Your task to perform on an android device: toggle javascript in the chrome app Image 0: 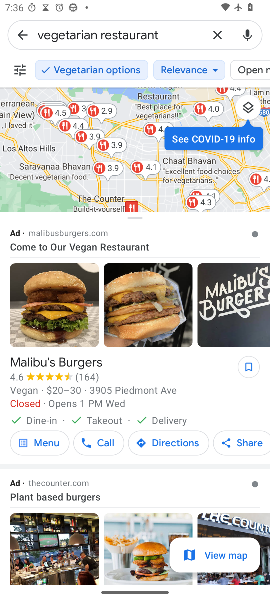
Step 0: press home button
Your task to perform on an android device: toggle javascript in the chrome app Image 1: 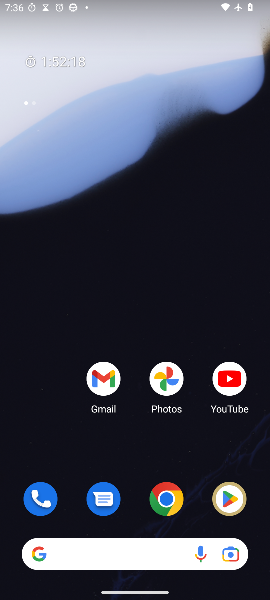
Step 1: drag from (111, 388) to (136, 29)
Your task to perform on an android device: toggle javascript in the chrome app Image 2: 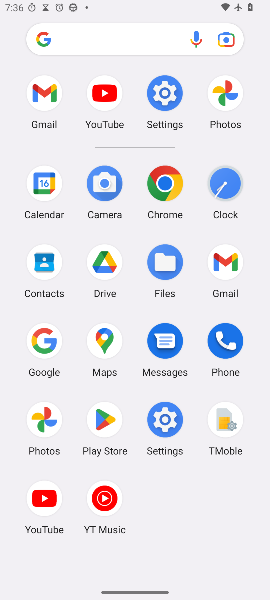
Step 2: click (166, 199)
Your task to perform on an android device: toggle javascript in the chrome app Image 3: 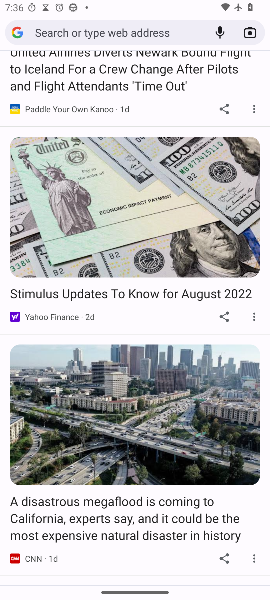
Step 3: drag from (160, 240) to (142, 486)
Your task to perform on an android device: toggle javascript in the chrome app Image 4: 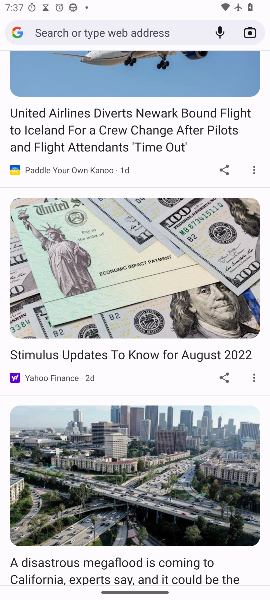
Step 4: drag from (129, 192) to (173, 479)
Your task to perform on an android device: toggle javascript in the chrome app Image 5: 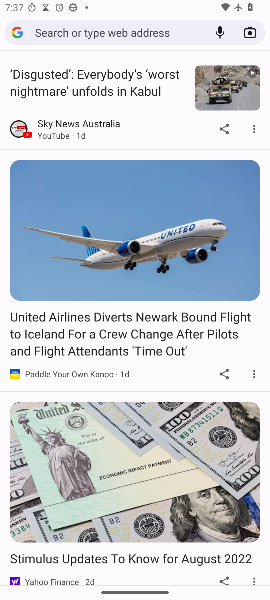
Step 5: drag from (164, 195) to (194, 468)
Your task to perform on an android device: toggle javascript in the chrome app Image 6: 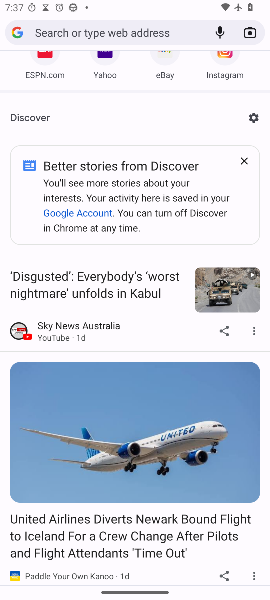
Step 6: drag from (141, 157) to (200, 490)
Your task to perform on an android device: toggle javascript in the chrome app Image 7: 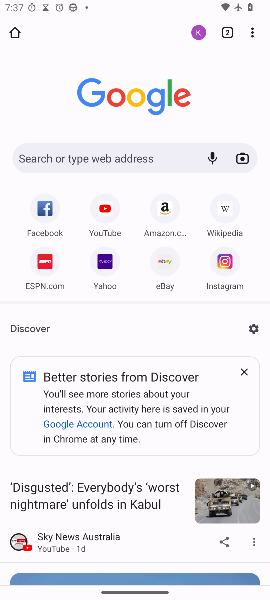
Step 7: drag from (251, 36) to (150, 297)
Your task to perform on an android device: toggle javascript in the chrome app Image 8: 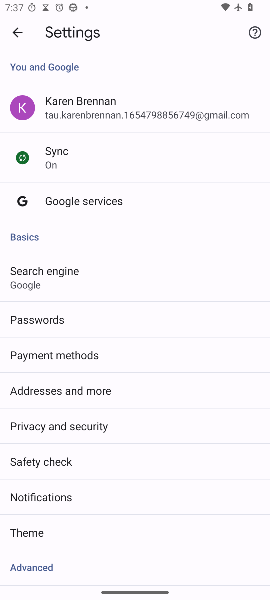
Step 8: drag from (93, 559) to (132, 169)
Your task to perform on an android device: toggle javascript in the chrome app Image 9: 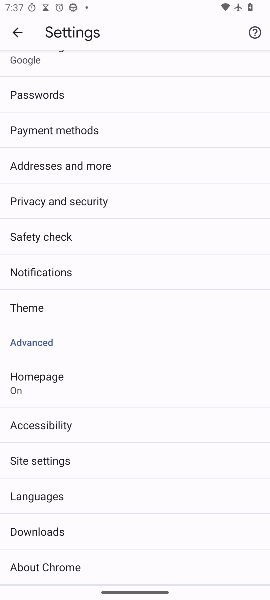
Step 9: click (55, 471)
Your task to perform on an android device: toggle javascript in the chrome app Image 10: 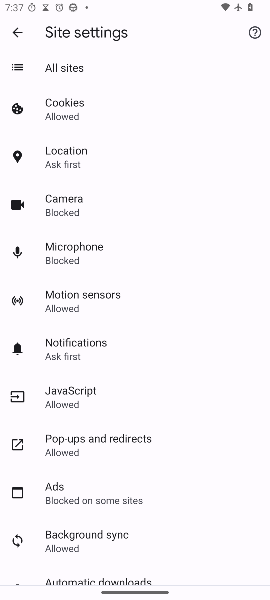
Step 10: click (58, 399)
Your task to perform on an android device: toggle javascript in the chrome app Image 11: 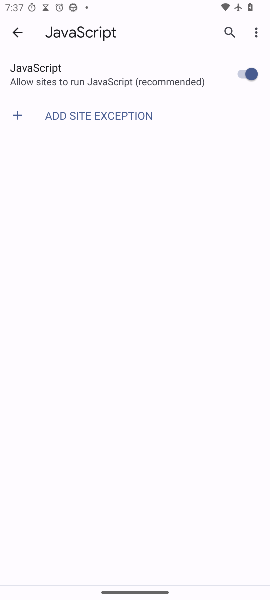
Step 11: click (243, 78)
Your task to perform on an android device: toggle javascript in the chrome app Image 12: 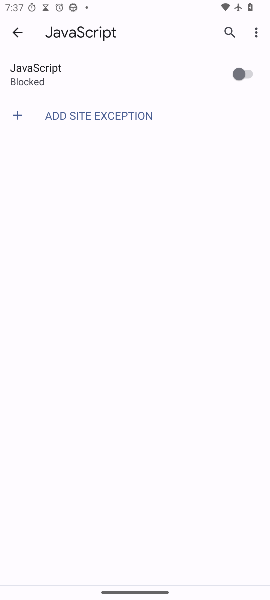
Step 12: task complete